Your task to perform on an android device: Add "macbook air" to the cart on walmart.com, then select checkout. Image 0: 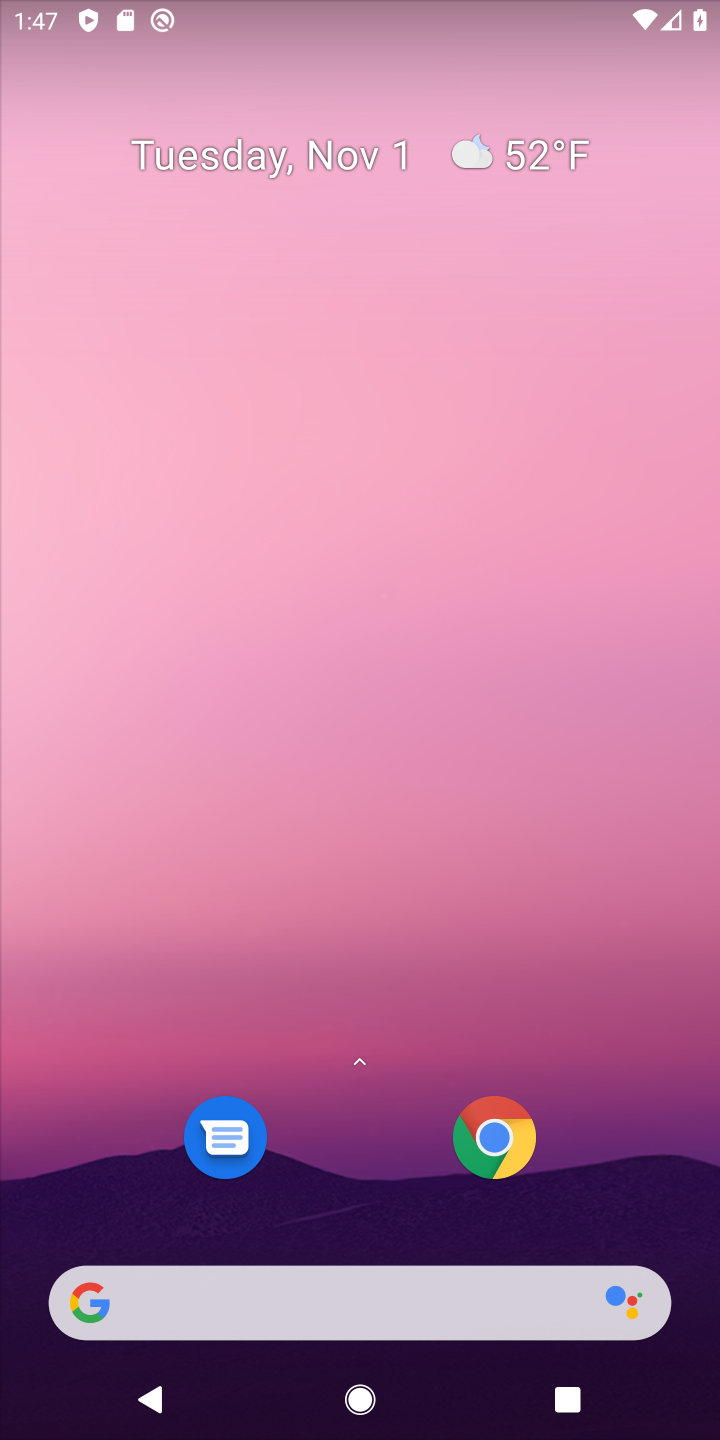
Step 0: click (325, 1305)
Your task to perform on an android device: Add "macbook air" to the cart on walmart.com, then select checkout. Image 1: 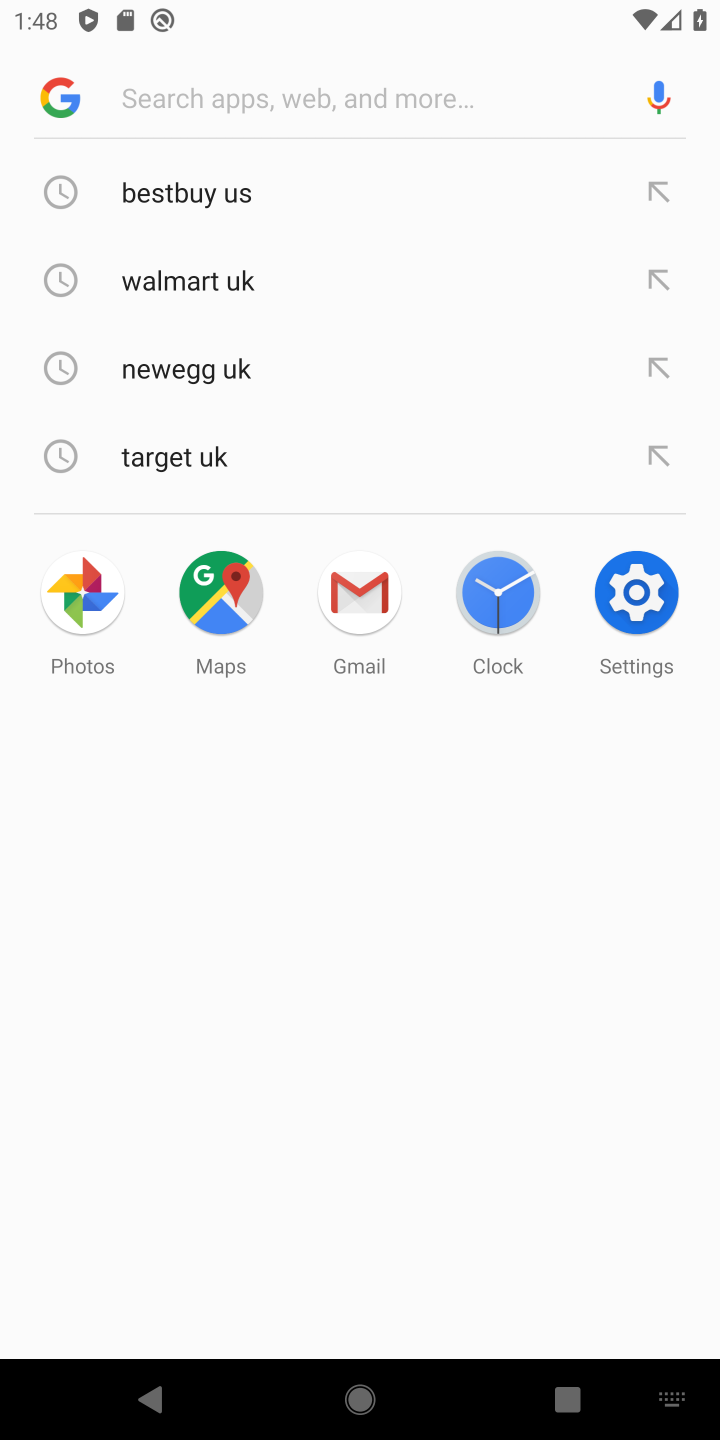
Step 1: type "macbook air"
Your task to perform on an android device: Add "macbook air" to the cart on walmart.com, then select checkout. Image 2: 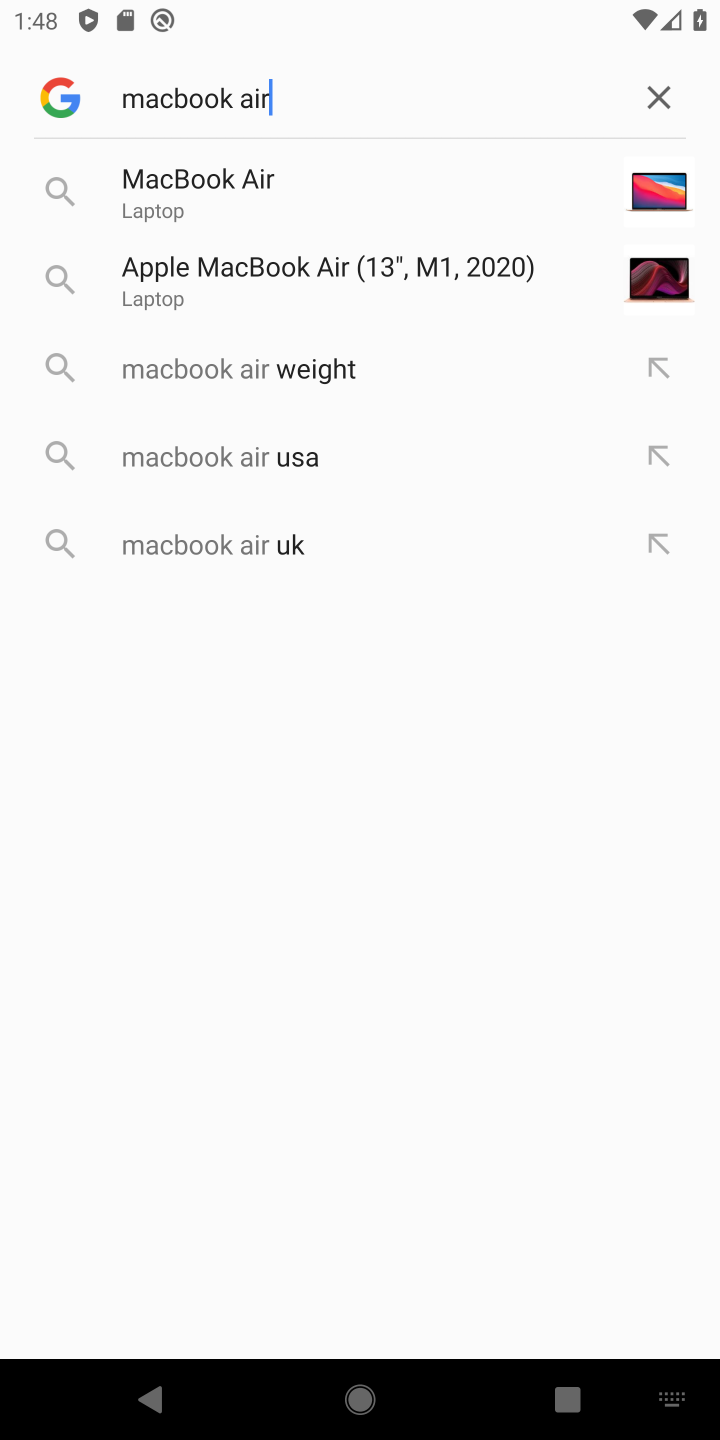
Step 2: click (153, 166)
Your task to perform on an android device: Add "macbook air" to the cart on walmart.com, then select checkout. Image 3: 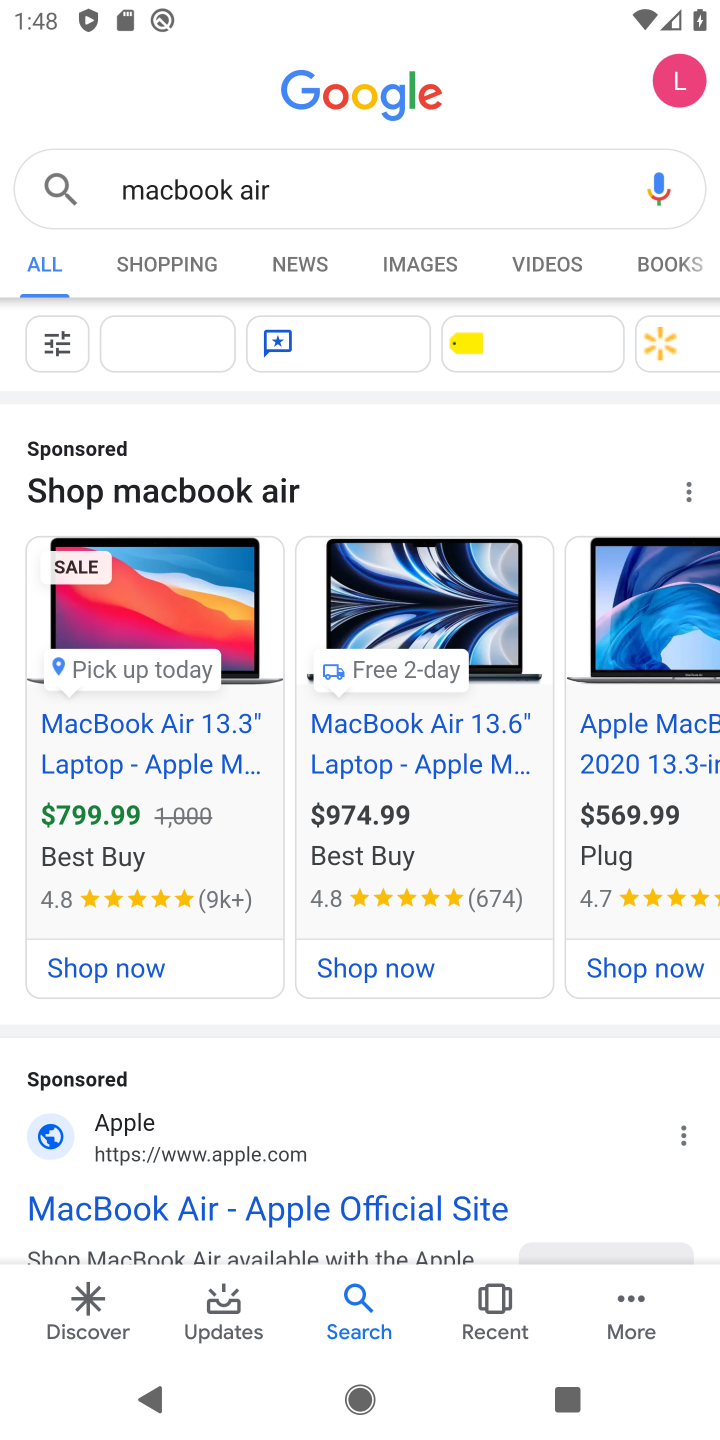
Step 3: drag from (648, 850) to (296, 938)
Your task to perform on an android device: Add "macbook air" to the cart on walmart.com, then select checkout. Image 4: 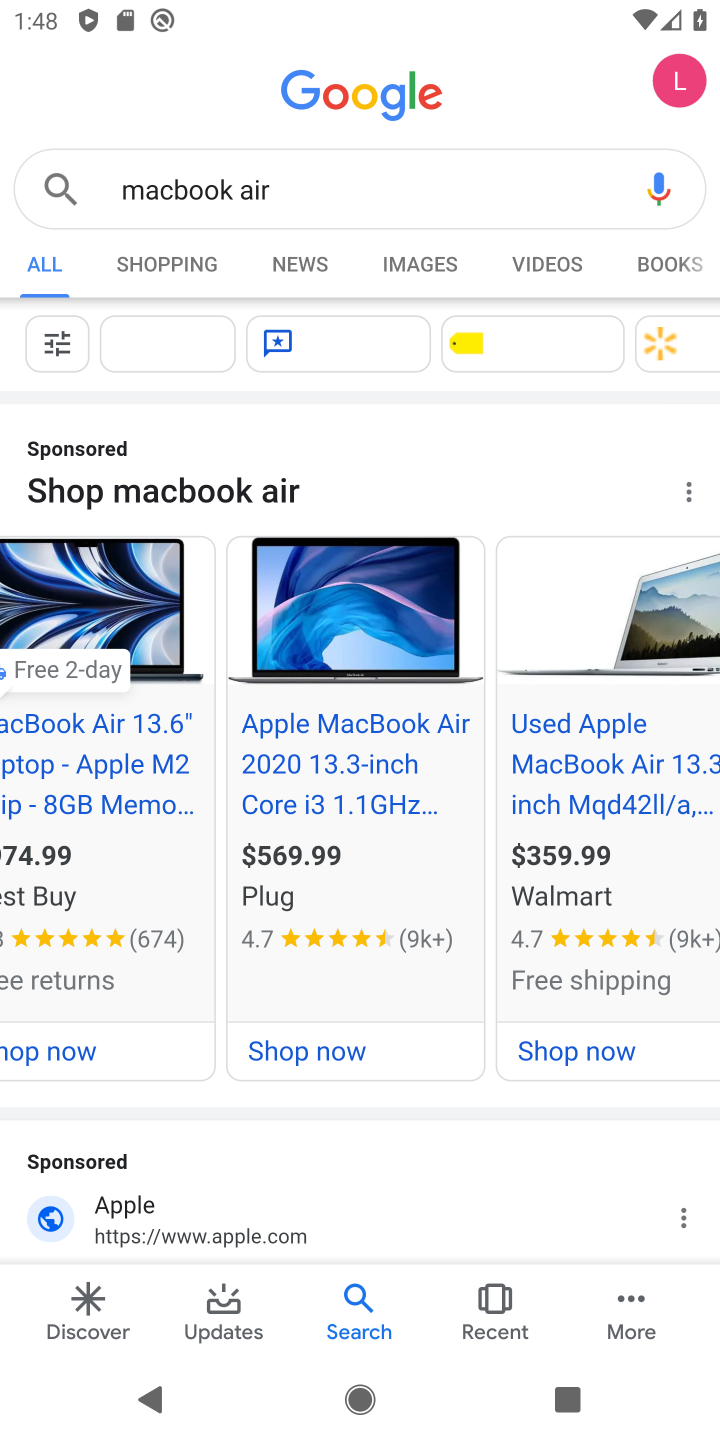
Step 4: click (590, 797)
Your task to perform on an android device: Add "macbook air" to the cart on walmart.com, then select checkout. Image 5: 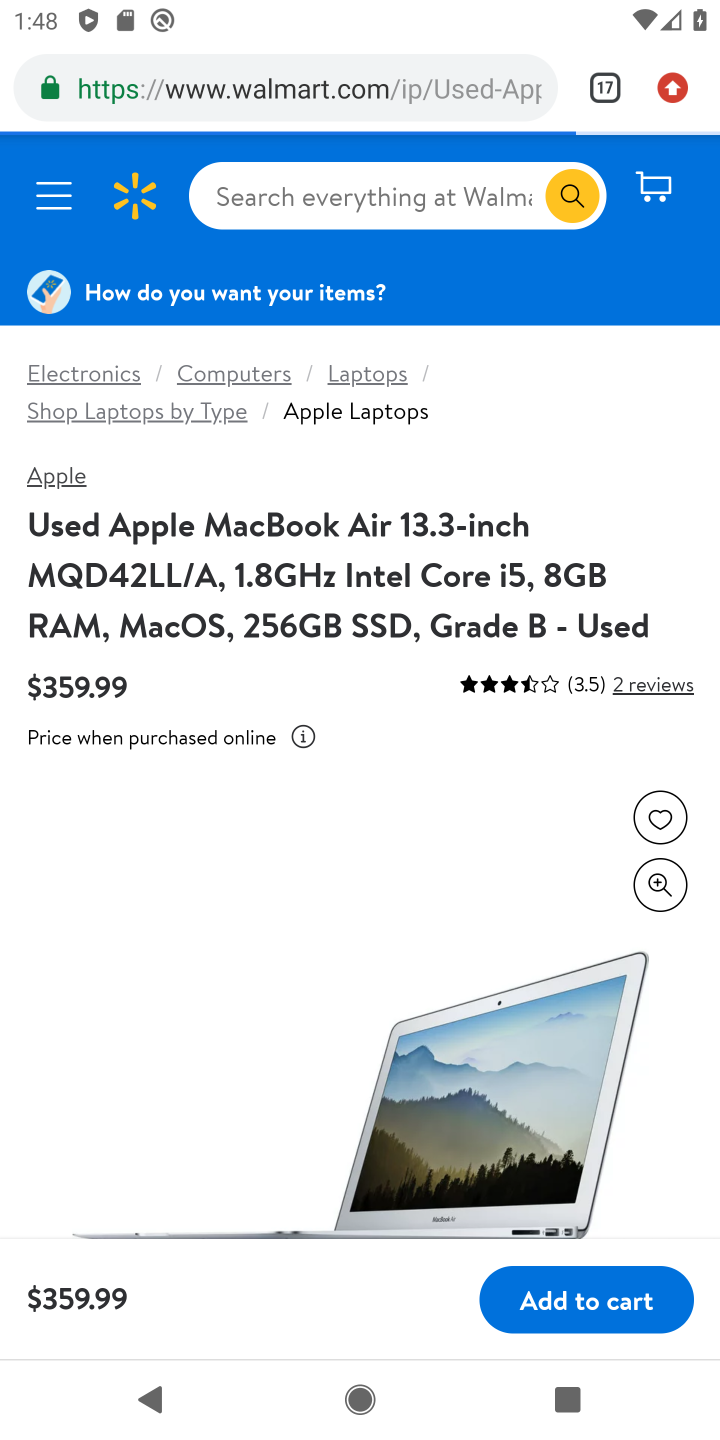
Step 5: click (610, 1318)
Your task to perform on an android device: Add "macbook air" to the cart on walmart.com, then select checkout. Image 6: 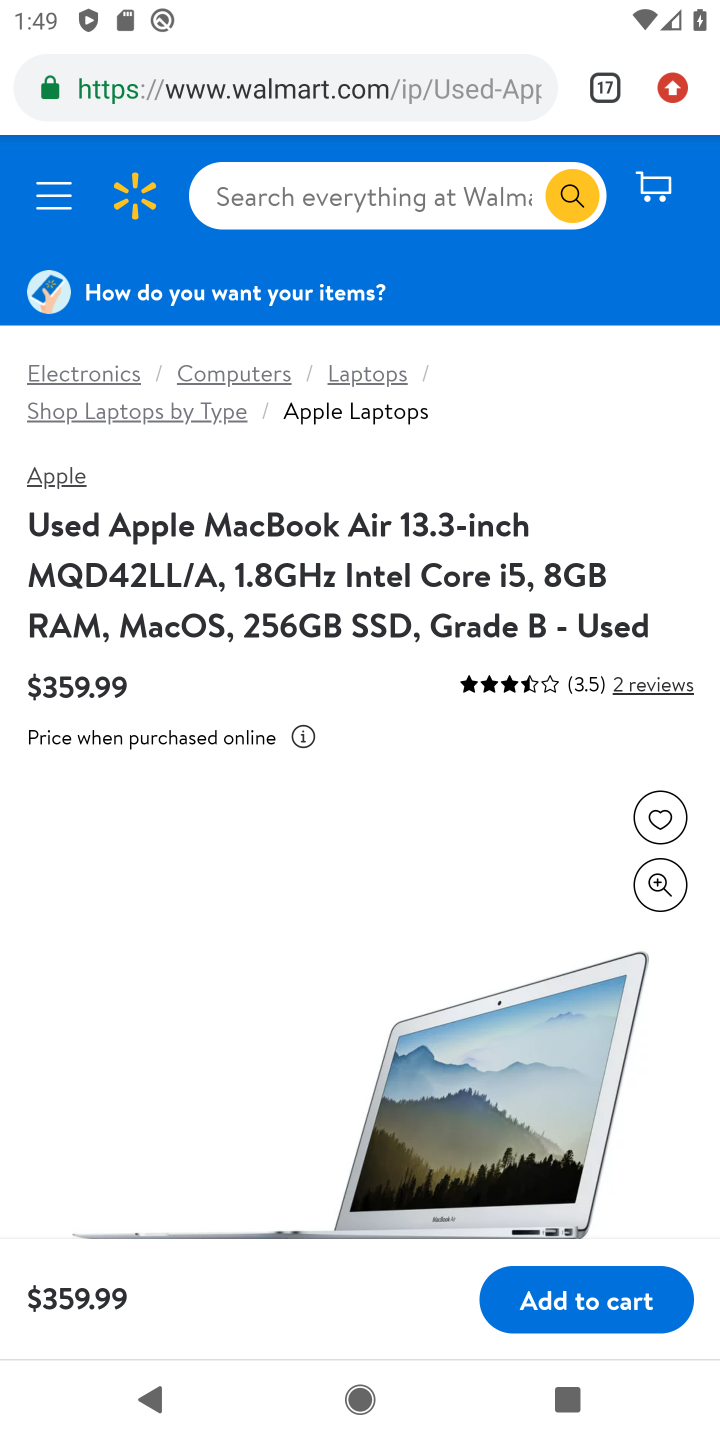
Step 6: task complete